Your task to perform on an android device: Show me popular games on the Play Store Image 0: 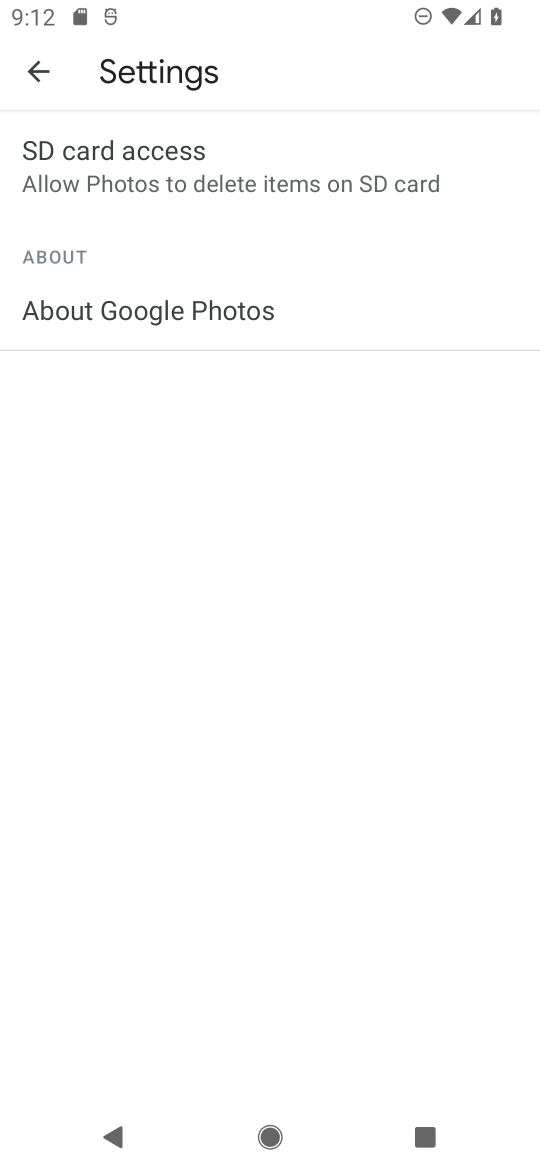
Step 0: press home button
Your task to perform on an android device: Show me popular games on the Play Store Image 1: 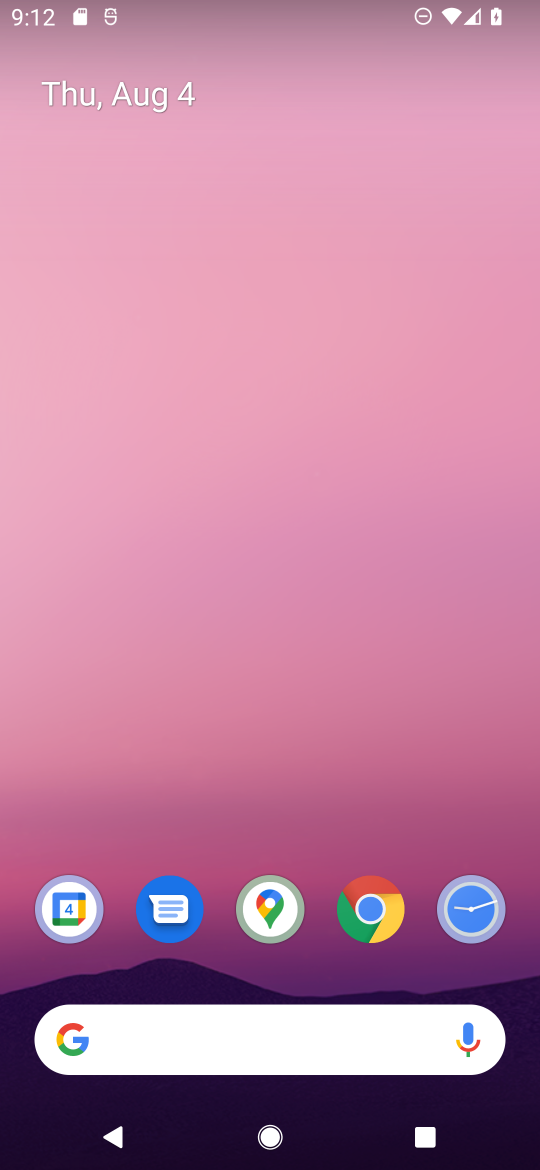
Step 1: drag from (313, 834) to (325, 203)
Your task to perform on an android device: Show me popular games on the Play Store Image 2: 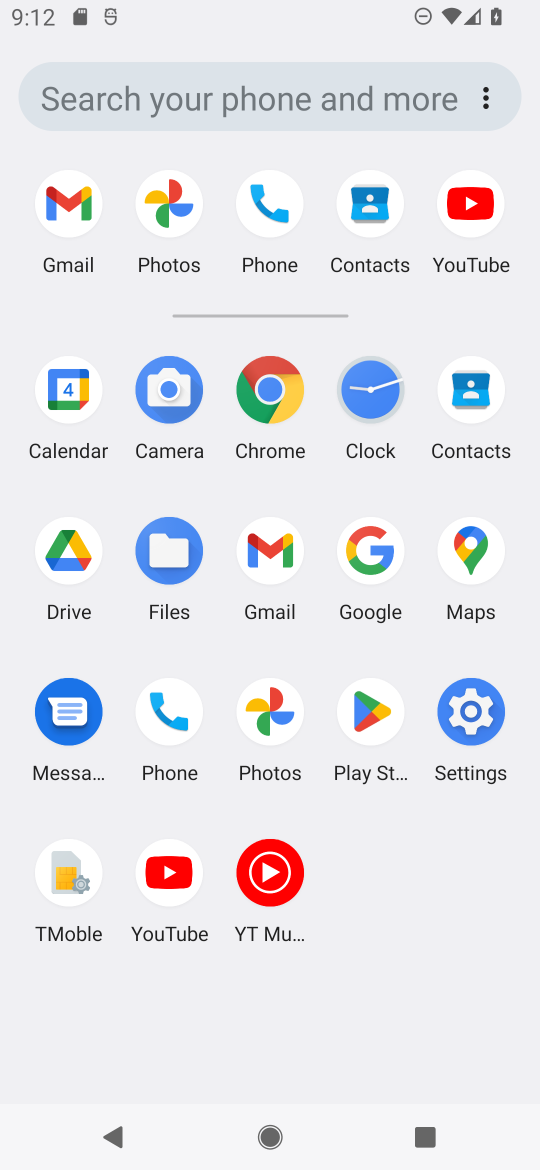
Step 2: click (373, 720)
Your task to perform on an android device: Show me popular games on the Play Store Image 3: 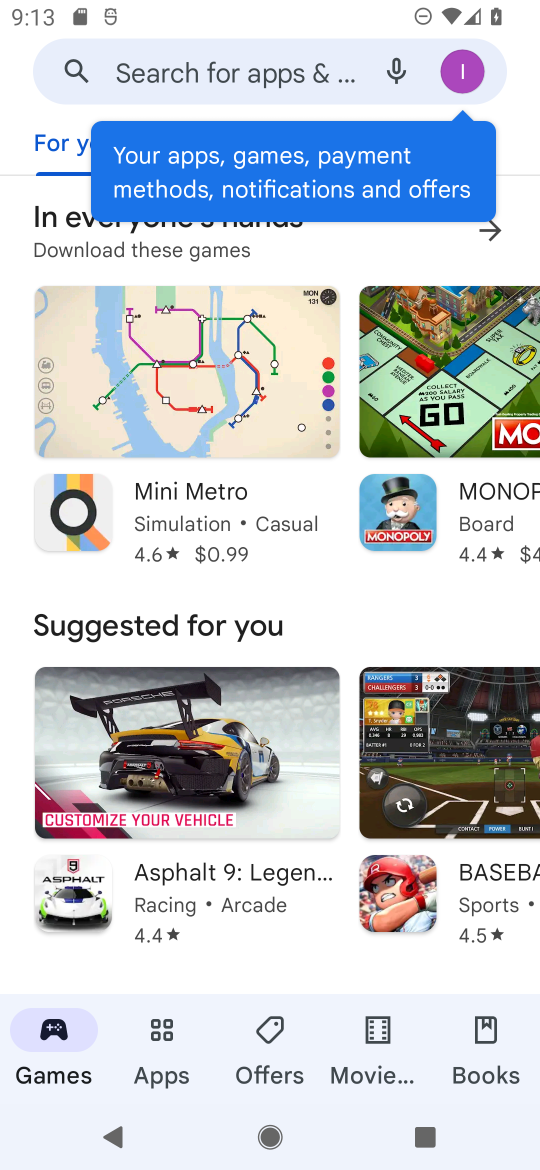
Step 3: click (150, 1056)
Your task to perform on an android device: Show me popular games on the Play Store Image 4: 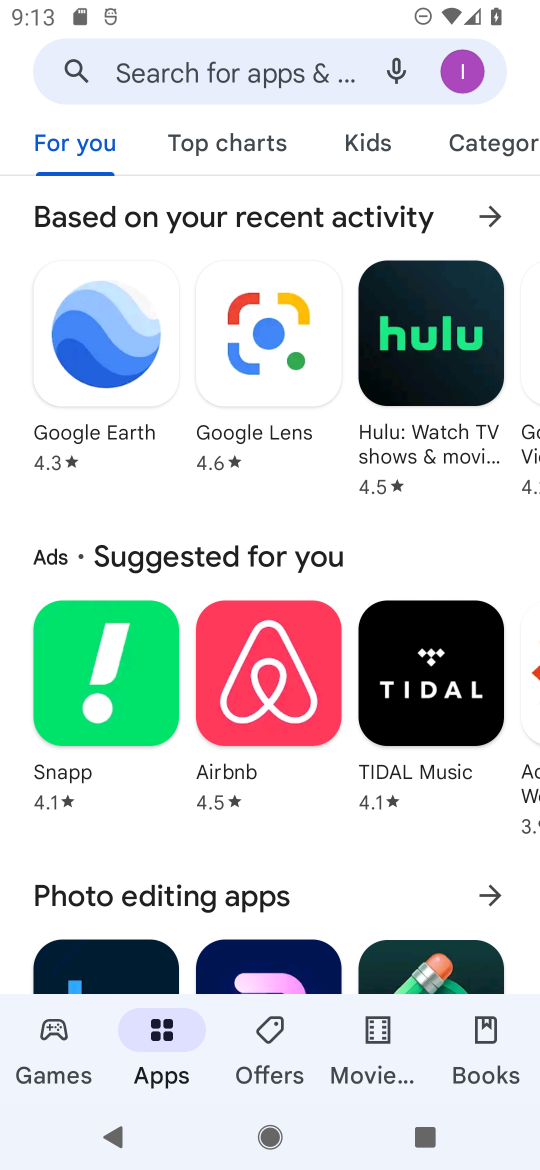
Step 4: click (41, 1034)
Your task to perform on an android device: Show me popular games on the Play Store Image 5: 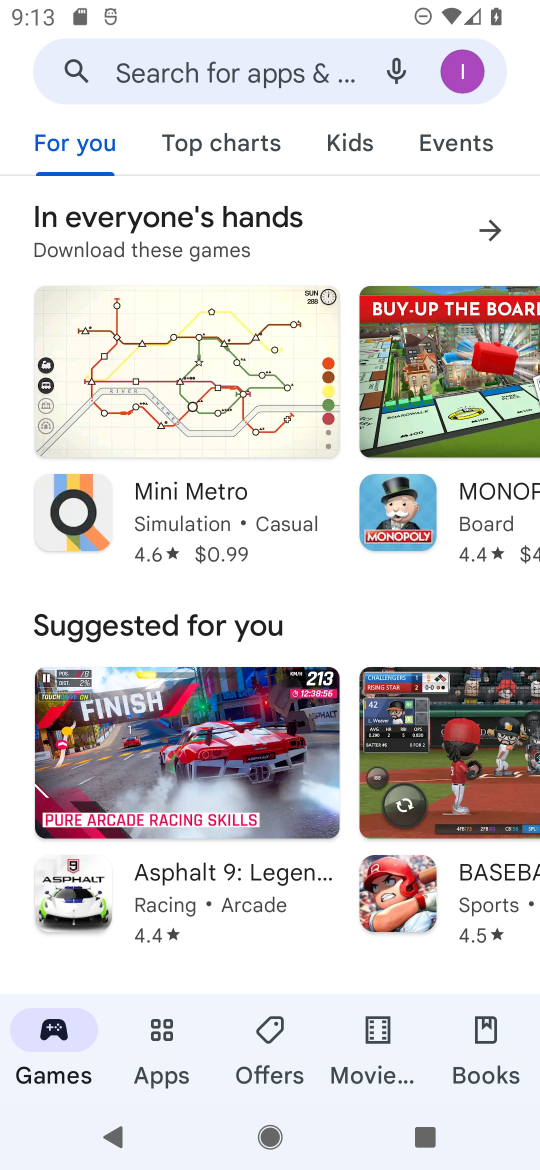
Step 5: task complete